Your task to perform on an android device: toggle sleep mode Image 0: 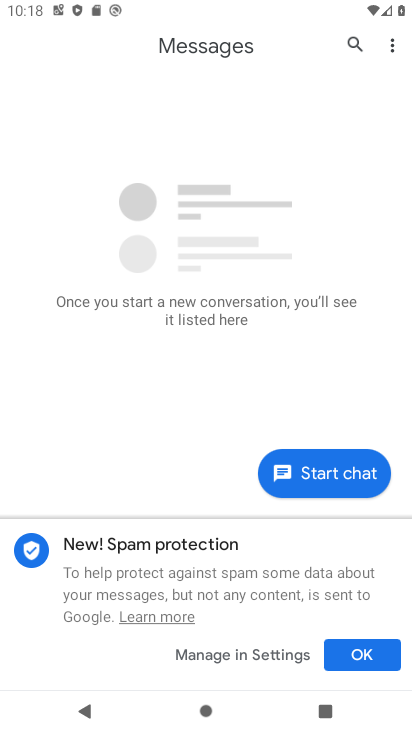
Step 0: press home button
Your task to perform on an android device: toggle sleep mode Image 1: 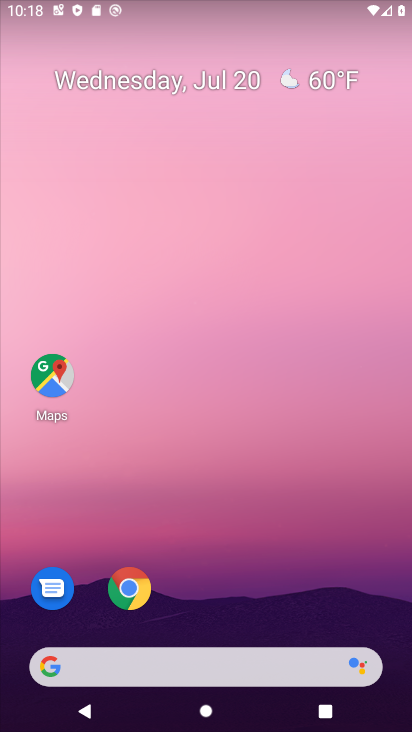
Step 1: drag from (253, 631) to (232, 141)
Your task to perform on an android device: toggle sleep mode Image 2: 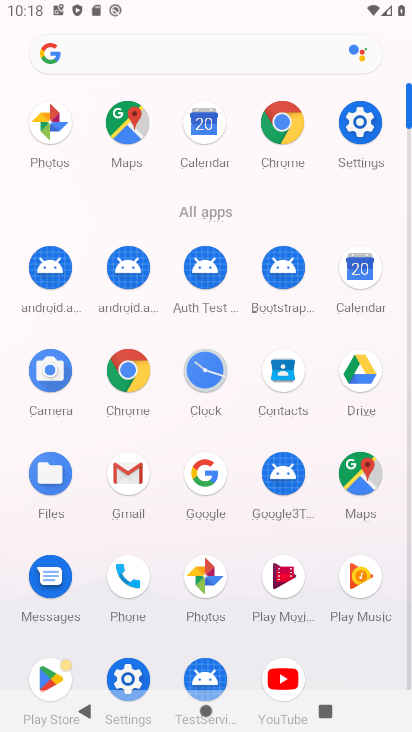
Step 2: click (359, 134)
Your task to perform on an android device: toggle sleep mode Image 3: 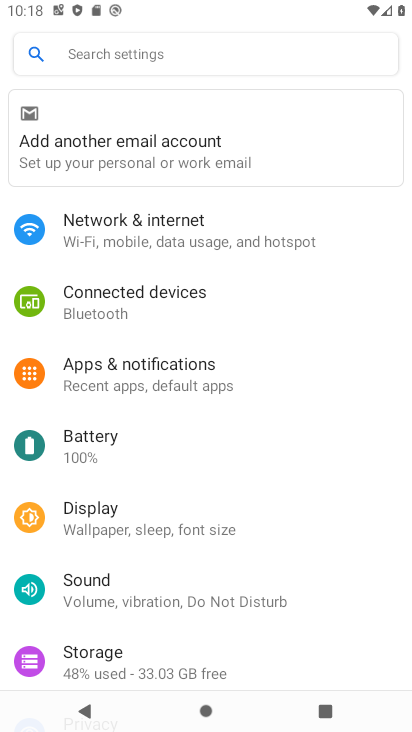
Step 3: click (226, 49)
Your task to perform on an android device: toggle sleep mode Image 4: 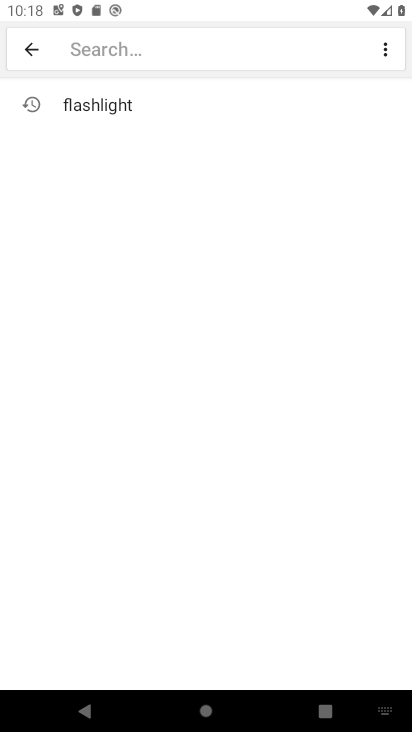
Step 4: type "sleep mode"
Your task to perform on an android device: toggle sleep mode Image 5: 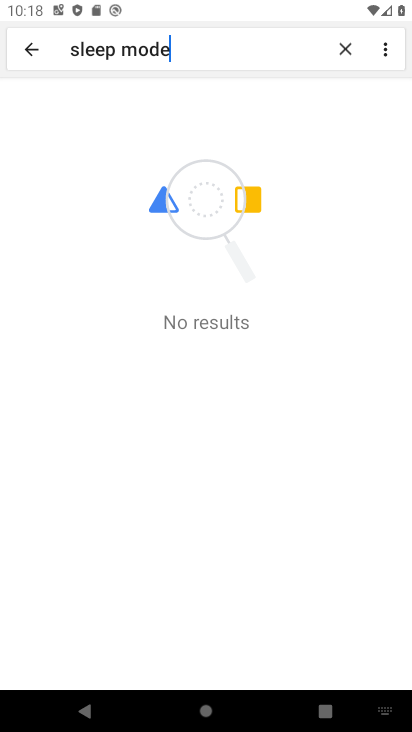
Step 5: task complete